Your task to perform on an android device: snooze an email in the gmail app Image 0: 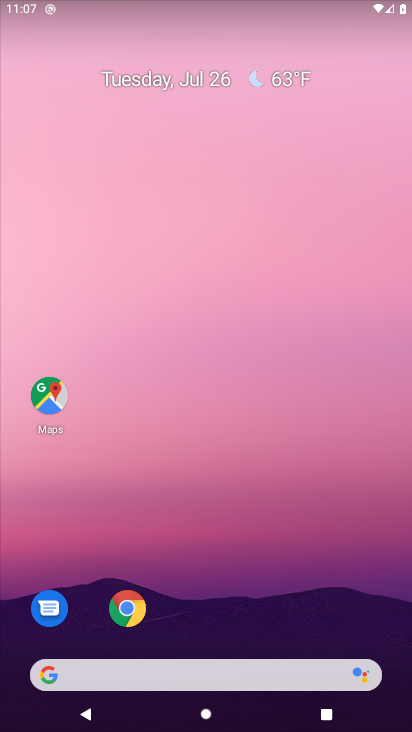
Step 0: drag from (280, 574) to (298, 101)
Your task to perform on an android device: snooze an email in the gmail app Image 1: 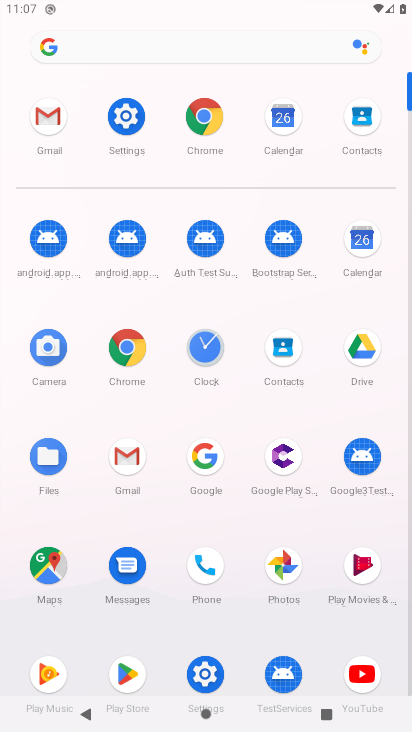
Step 1: click (48, 117)
Your task to perform on an android device: snooze an email in the gmail app Image 2: 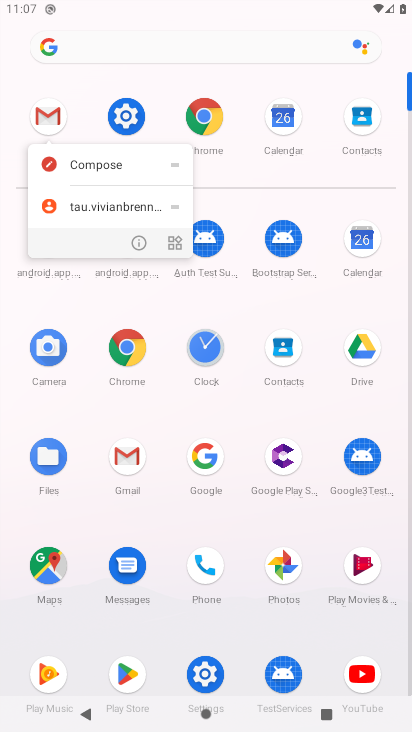
Step 2: click (45, 117)
Your task to perform on an android device: snooze an email in the gmail app Image 3: 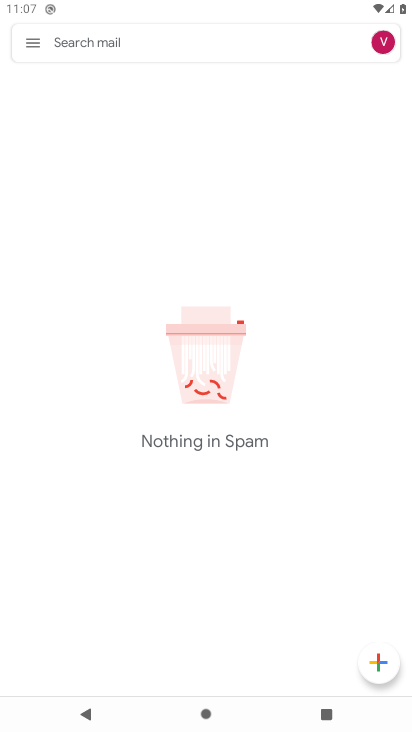
Step 3: click (28, 37)
Your task to perform on an android device: snooze an email in the gmail app Image 4: 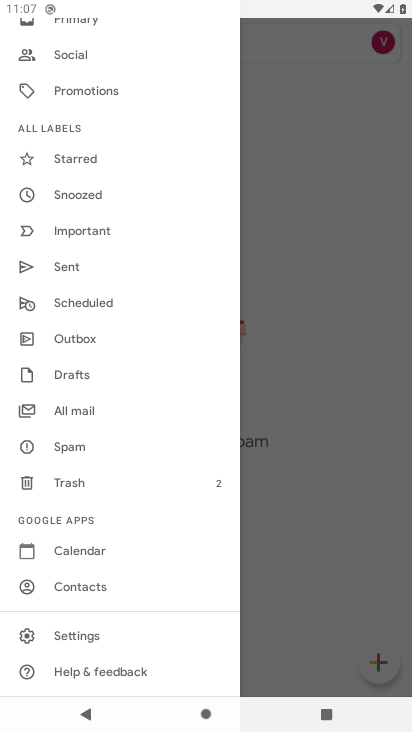
Step 4: click (89, 198)
Your task to perform on an android device: snooze an email in the gmail app Image 5: 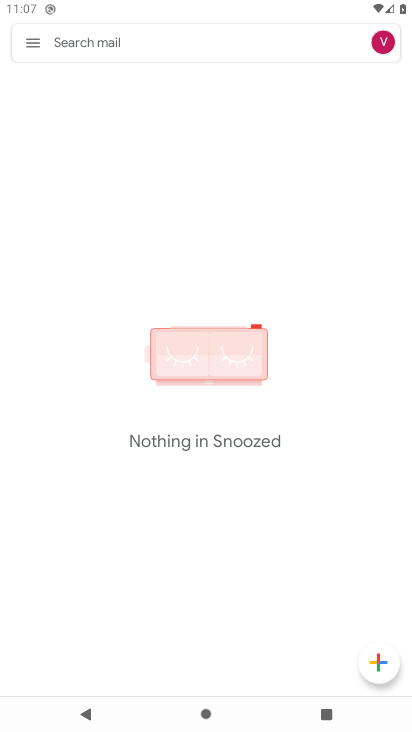
Step 5: task complete